Your task to perform on an android device: Open CNN.com Image 0: 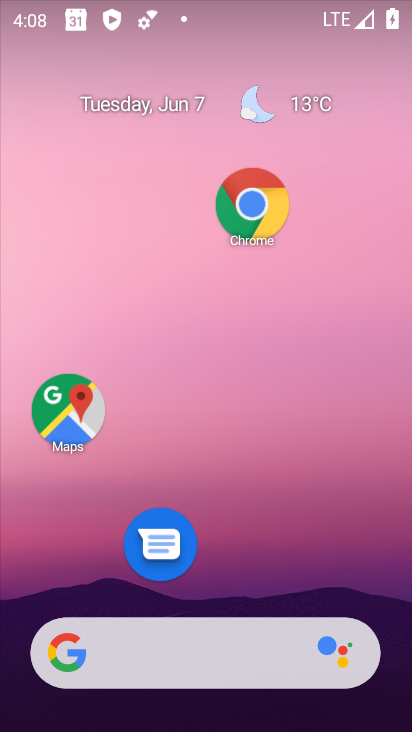
Step 0: click (253, 199)
Your task to perform on an android device: Open CNN.com Image 1: 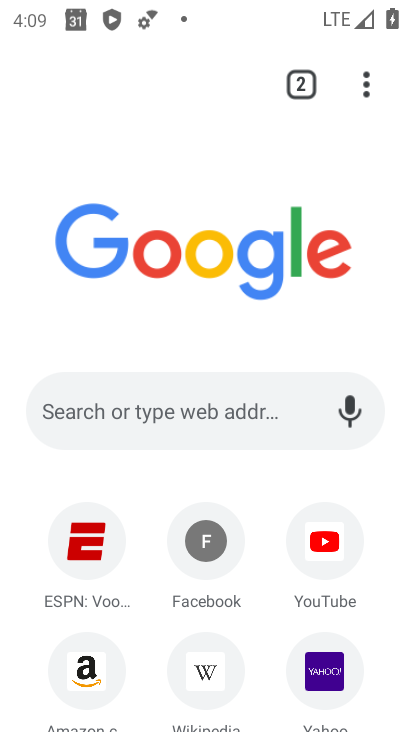
Step 1: drag from (269, 639) to (249, 328)
Your task to perform on an android device: Open CNN.com Image 2: 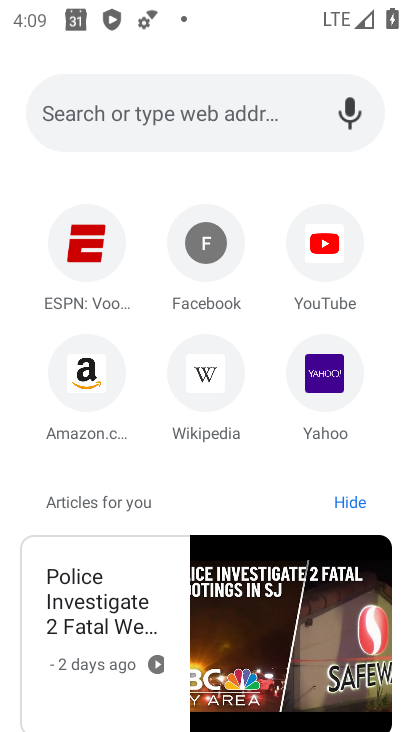
Step 2: click (140, 98)
Your task to perform on an android device: Open CNN.com Image 3: 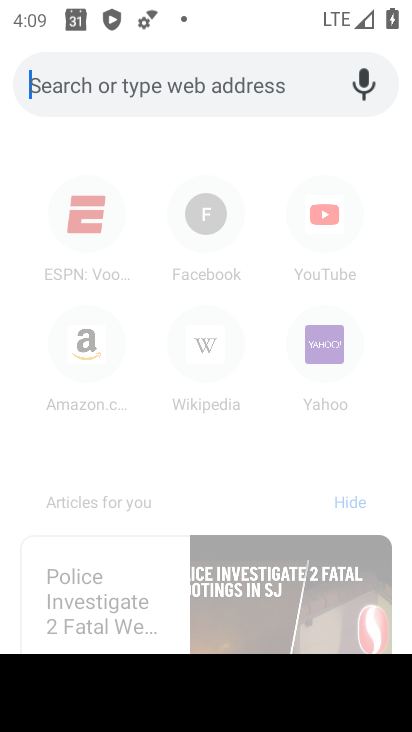
Step 3: type "cnn.com"
Your task to perform on an android device: Open CNN.com Image 4: 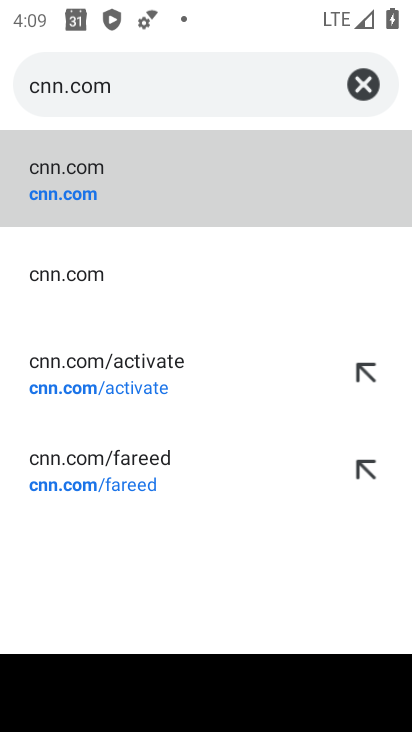
Step 4: click (103, 178)
Your task to perform on an android device: Open CNN.com Image 5: 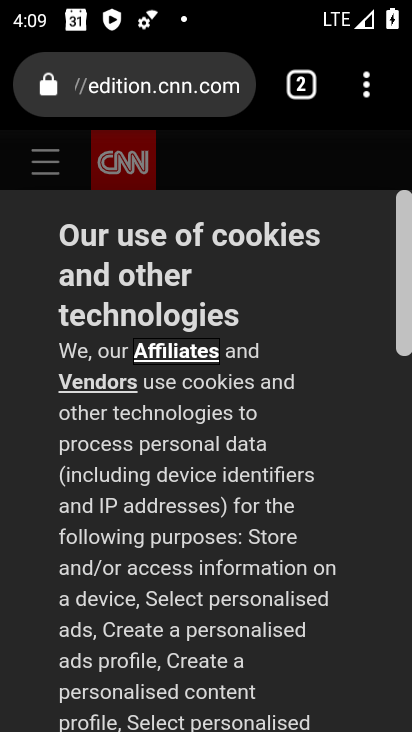
Step 5: drag from (220, 678) to (220, 230)
Your task to perform on an android device: Open CNN.com Image 6: 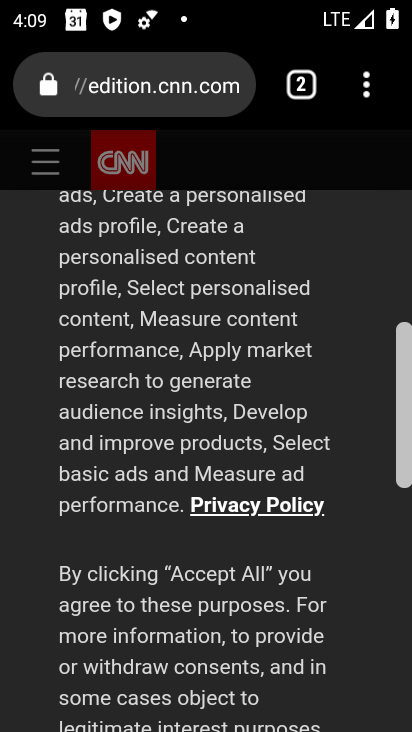
Step 6: drag from (185, 660) to (179, 193)
Your task to perform on an android device: Open CNN.com Image 7: 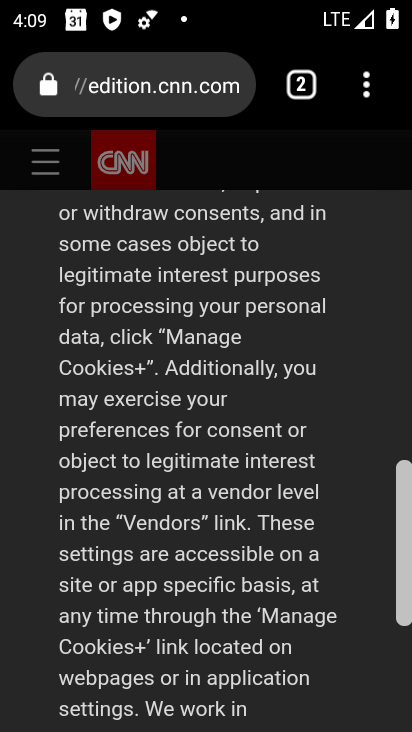
Step 7: drag from (194, 658) to (198, 190)
Your task to perform on an android device: Open CNN.com Image 8: 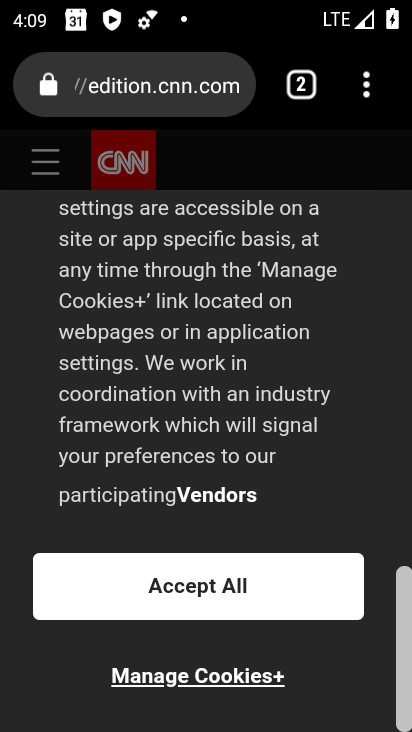
Step 8: click (207, 589)
Your task to perform on an android device: Open CNN.com Image 9: 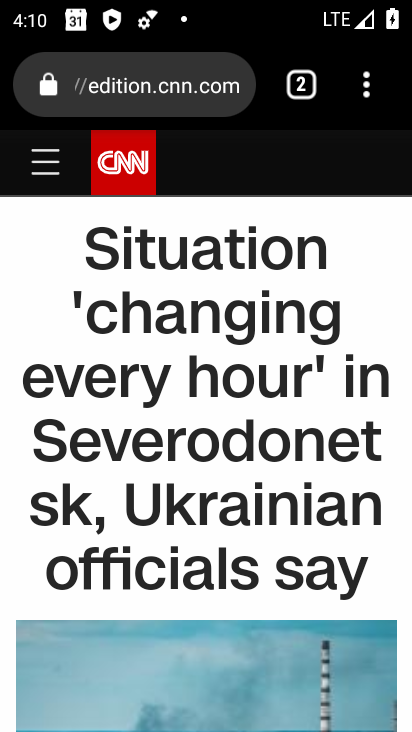
Step 9: task complete